Your task to perform on an android device: Search for vegetarian restaurants on Maps Image 0: 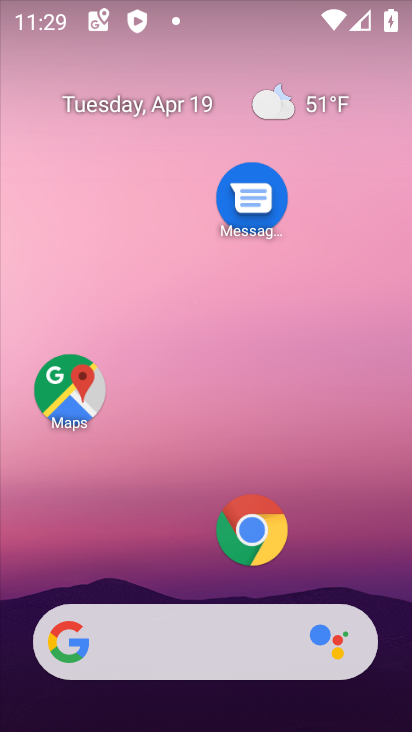
Step 0: click (77, 389)
Your task to perform on an android device: Search for vegetarian restaurants on Maps Image 1: 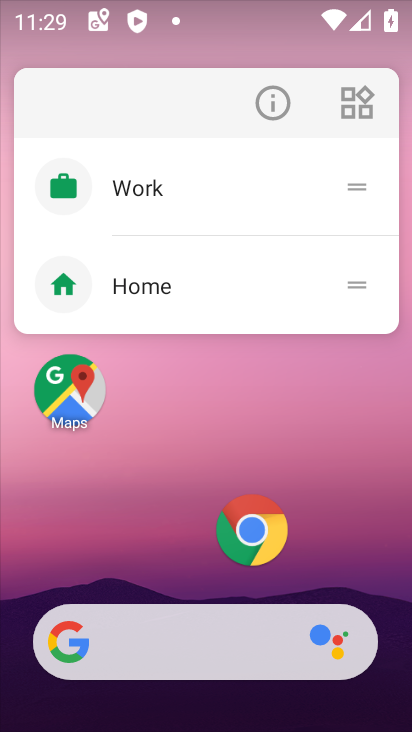
Step 1: click (78, 388)
Your task to perform on an android device: Search for vegetarian restaurants on Maps Image 2: 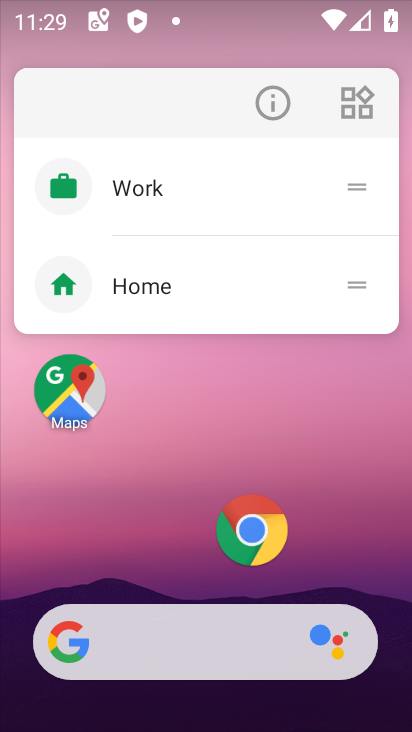
Step 2: click (76, 393)
Your task to perform on an android device: Search for vegetarian restaurants on Maps Image 3: 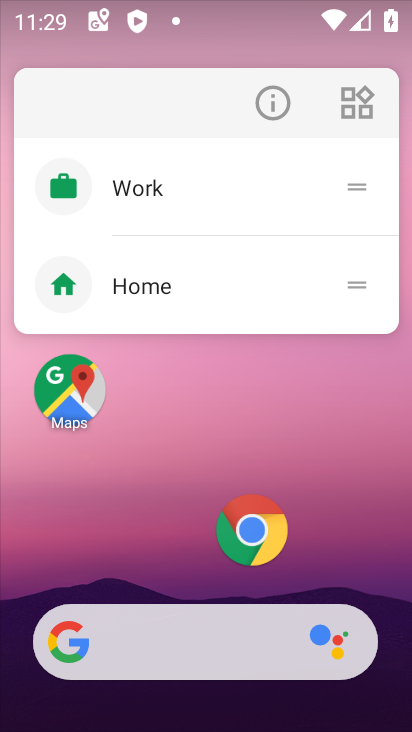
Step 3: click (81, 393)
Your task to perform on an android device: Search for vegetarian restaurants on Maps Image 4: 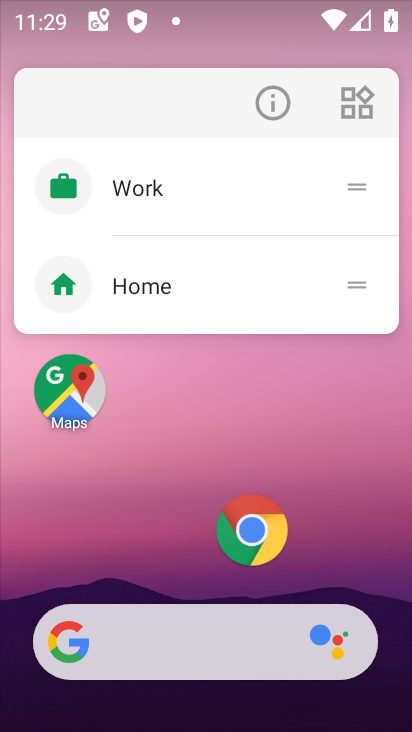
Step 4: click (79, 388)
Your task to perform on an android device: Search for vegetarian restaurants on Maps Image 5: 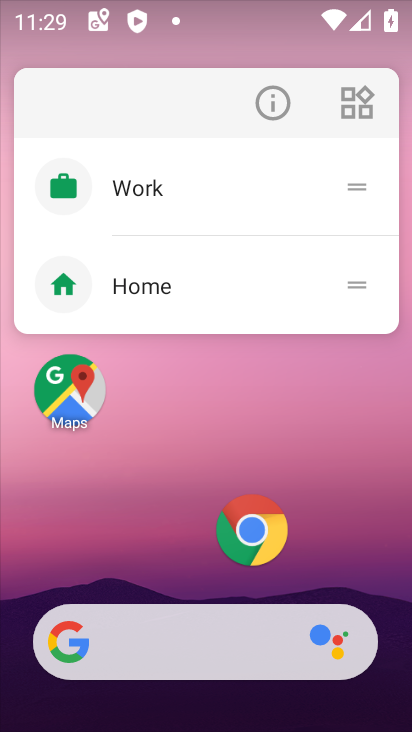
Step 5: click (79, 400)
Your task to perform on an android device: Search for vegetarian restaurants on Maps Image 6: 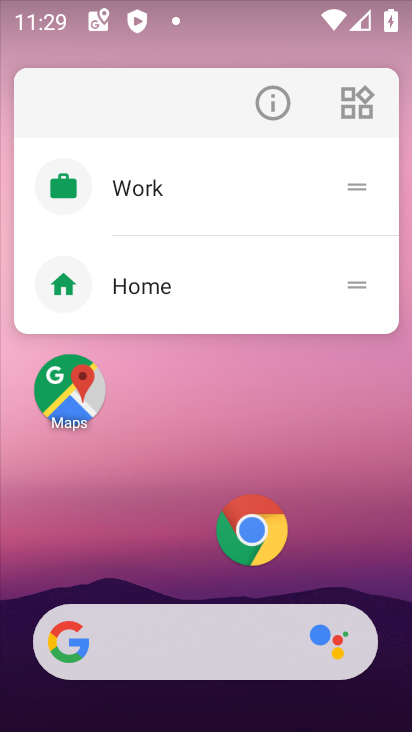
Step 6: click (76, 399)
Your task to perform on an android device: Search for vegetarian restaurants on Maps Image 7: 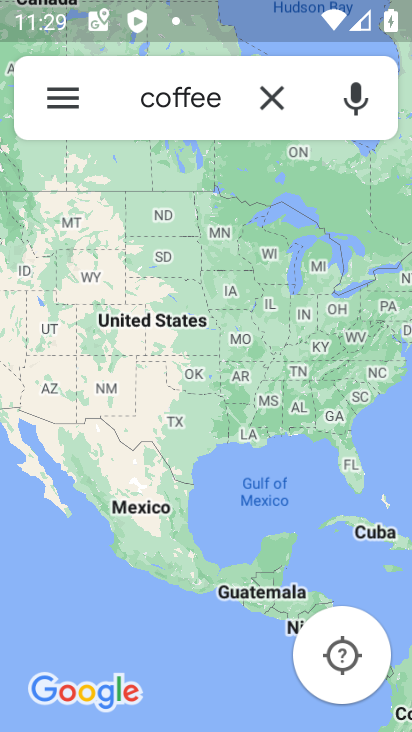
Step 7: click (260, 110)
Your task to perform on an android device: Search for vegetarian restaurants on Maps Image 8: 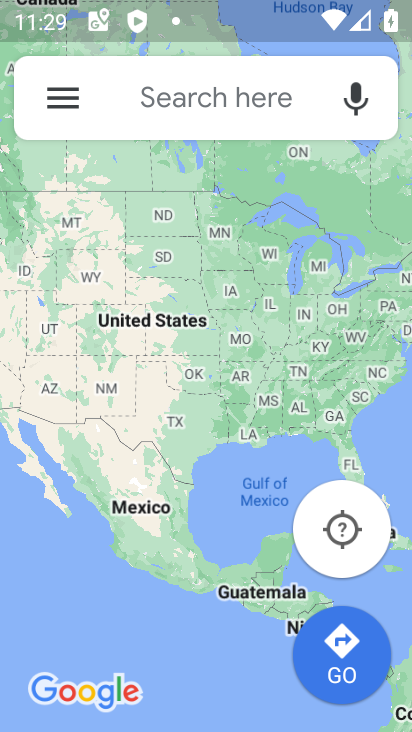
Step 8: click (249, 102)
Your task to perform on an android device: Search for vegetarian restaurants on Maps Image 9: 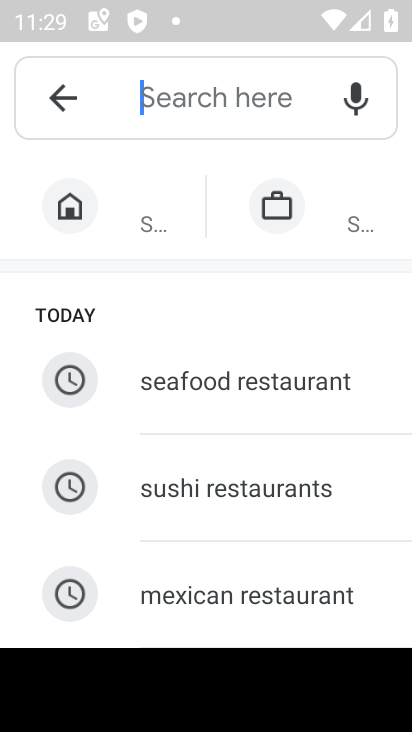
Step 9: type "vegetarian restaurants "
Your task to perform on an android device: Search for vegetarian restaurants on Maps Image 10: 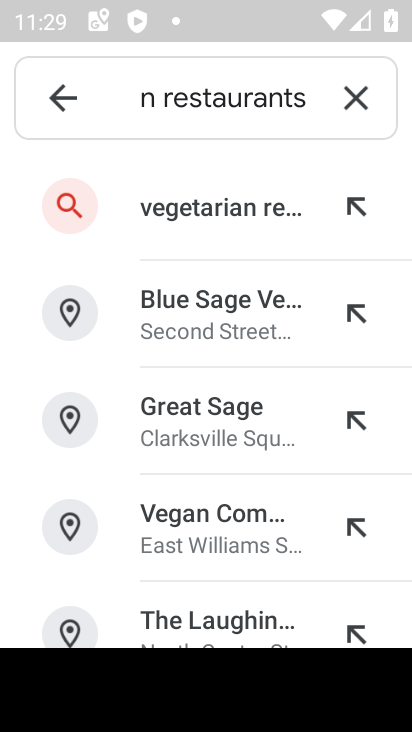
Step 10: click (204, 209)
Your task to perform on an android device: Search for vegetarian restaurants on Maps Image 11: 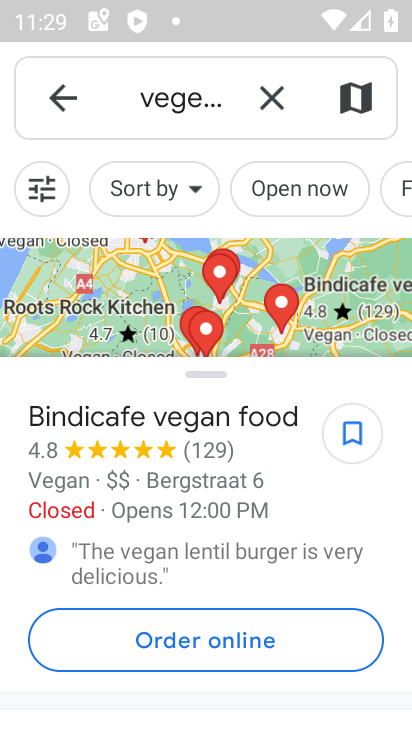
Step 11: task complete